Your task to perform on an android device: toggle javascript in the chrome app Image 0: 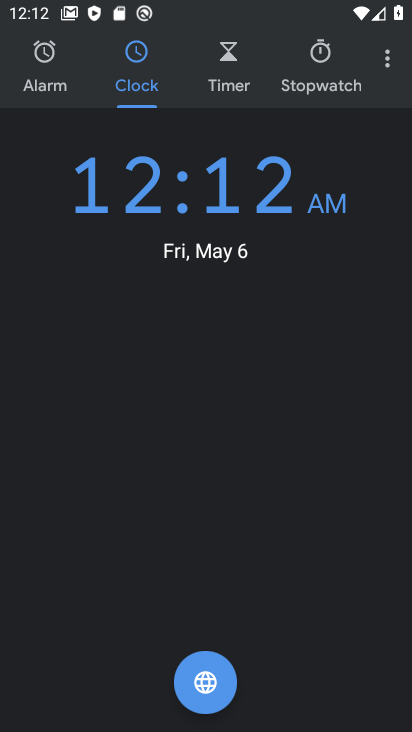
Step 0: press back button
Your task to perform on an android device: toggle javascript in the chrome app Image 1: 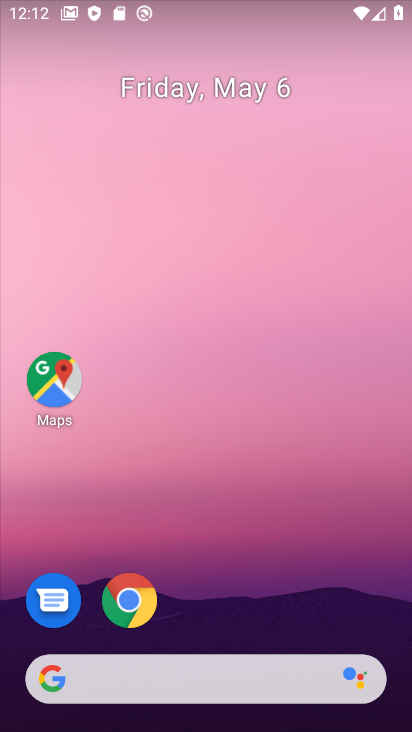
Step 1: click (126, 618)
Your task to perform on an android device: toggle javascript in the chrome app Image 2: 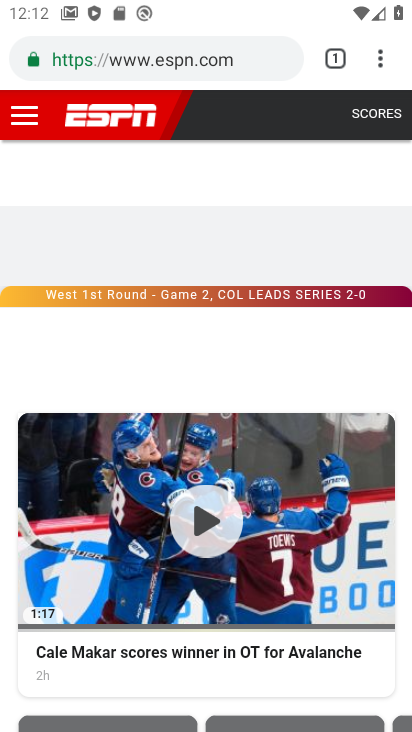
Step 2: drag from (387, 63) to (253, 626)
Your task to perform on an android device: toggle javascript in the chrome app Image 3: 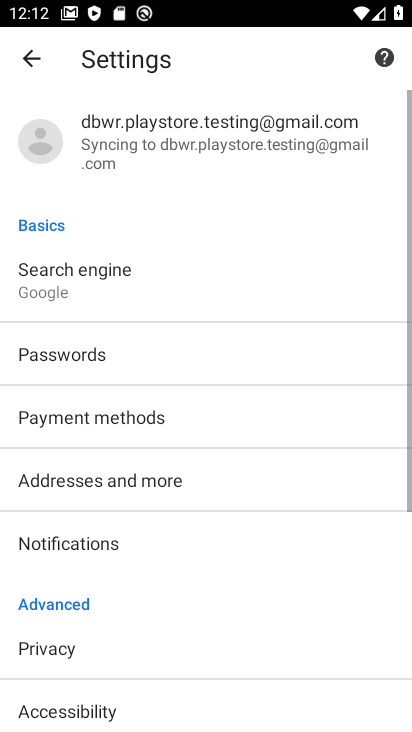
Step 3: drag from (185, 659) to (244, 352)
Your task to perform on an android device: toggle javascript in the chrome app Image 4: 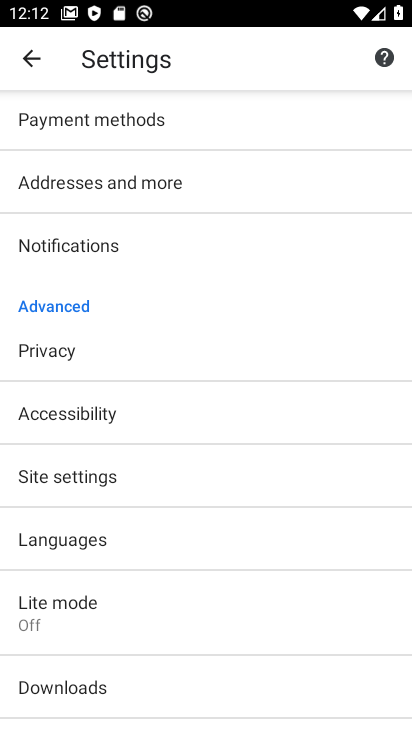
Step 4: click (100, 484)
Your task to perform on an android device: toggle javascript in the chrome app Image 5: 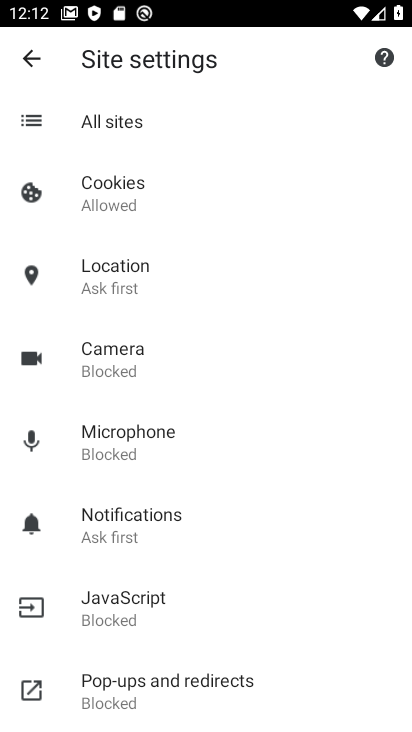
Step 5: click (153, 596)
Your task to perform on an android device: toggle javascript in the chrome app Image 6: 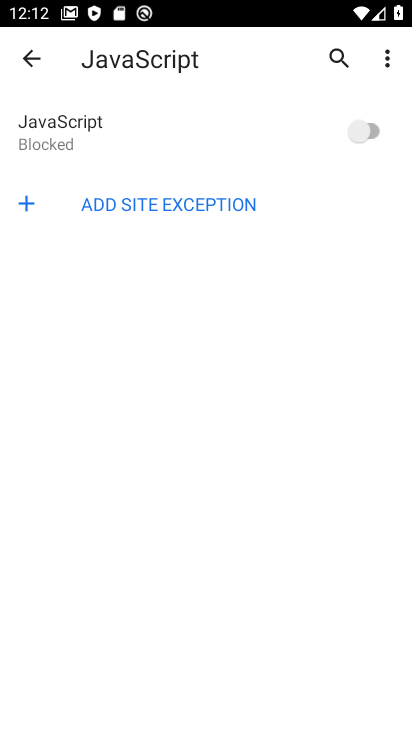
Step 6: click (390, 130)
Your task to perform on an android device: toggle javascript in the chrome app Image 7: 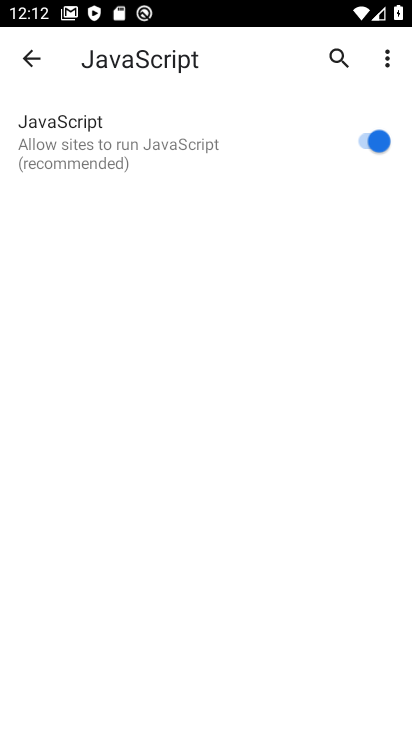
Step 7: task complete